Your task to perform on an android device: Open accessibility settings Image 0: 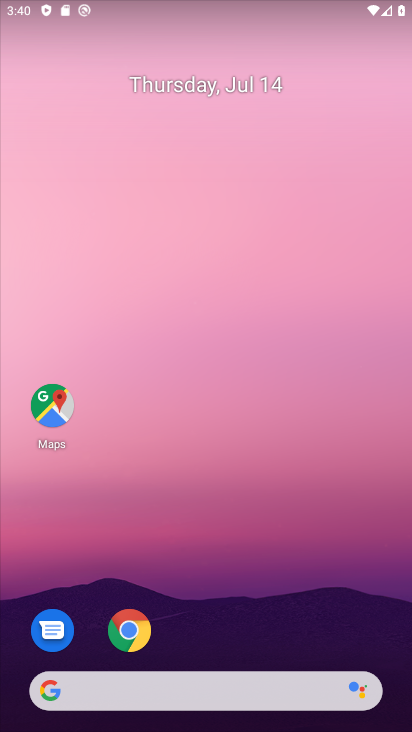
Step 0: drag from (246, 618) to (263, 10)
Your task to perform on an android device: Open accessibility settings Image 1: 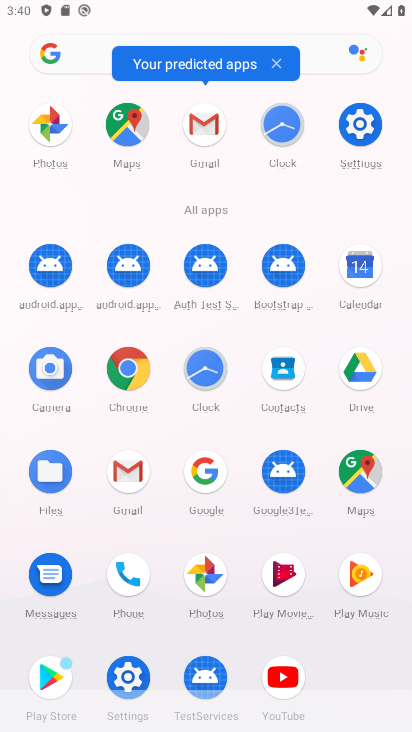
Step 1: click (362, 127)
Your task to perform on an android device: Open accessibility settings Image 2: 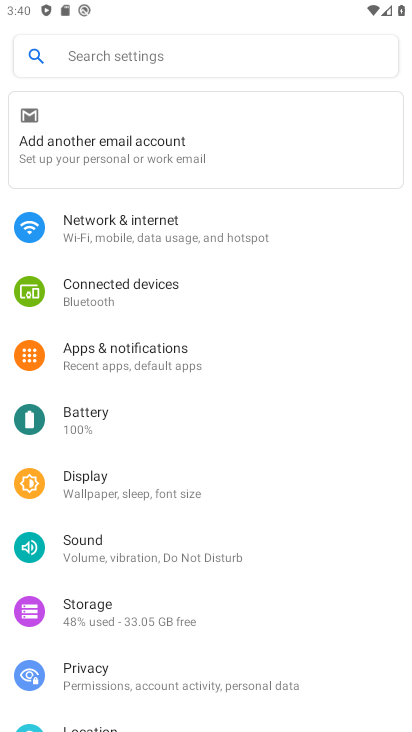
Step 2: drag from (90, 692) to (139, 67)
Your task to perform on an android device: Open accessibility settings Image 3: 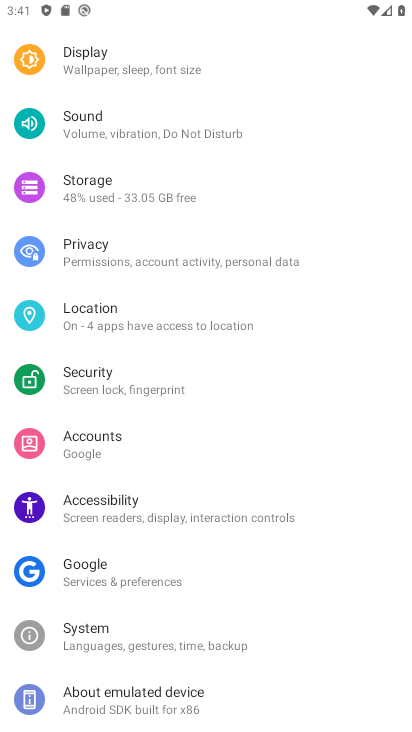
Step 3: click (140, 513)
Your task to perform on an android device: Open accessibility settings Image 4: 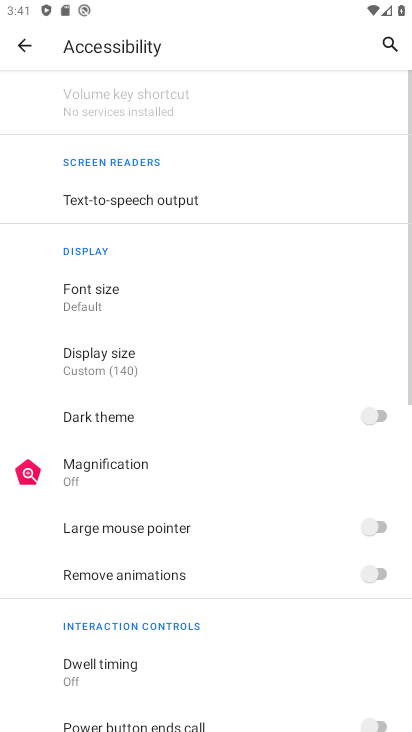
Step 4: task complete